Your task to perform on an android device: Open wifi settings Image 0: 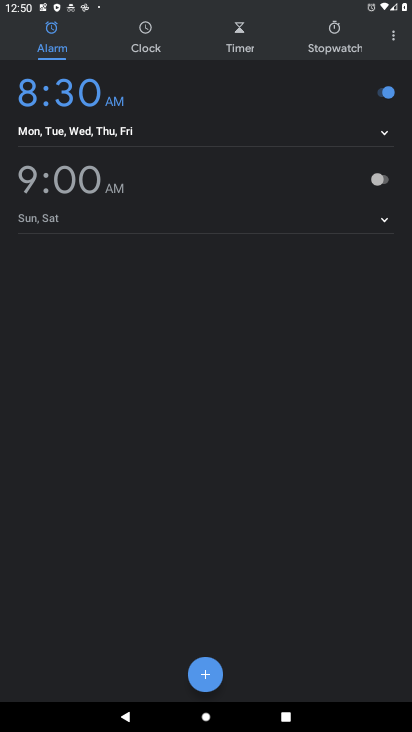
Step 0: press home button
Your task to perform on an android device: Open wifi settings Image 1: 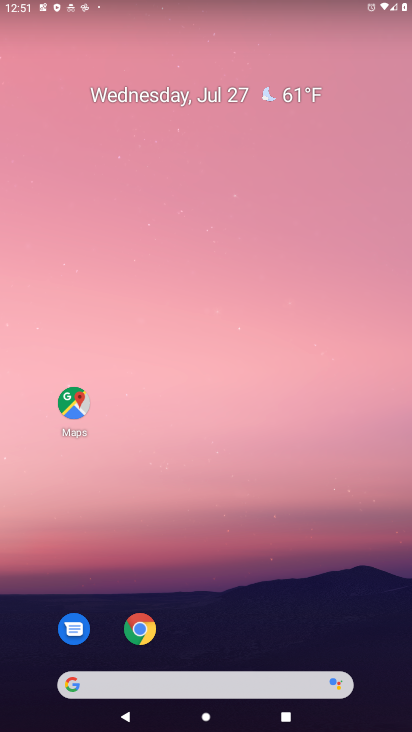
Step 1: drag from (272, 625) to (196, 31)
Your task to perform on an android device: Open wifi settings Image 2: 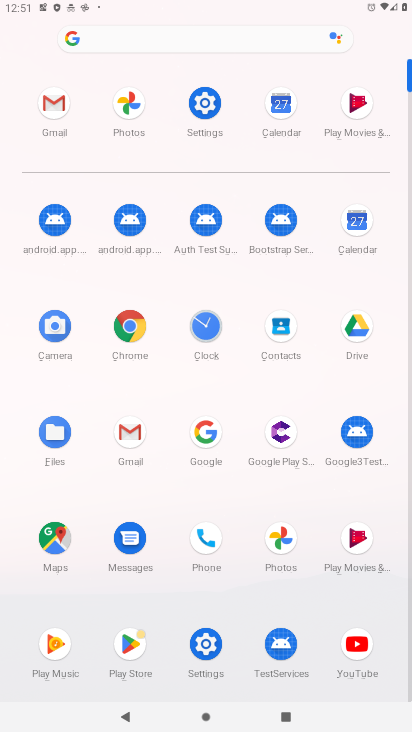
Step 2: click (213, 125)
Your task to perform on an android device: Open wifi settings Image 3: 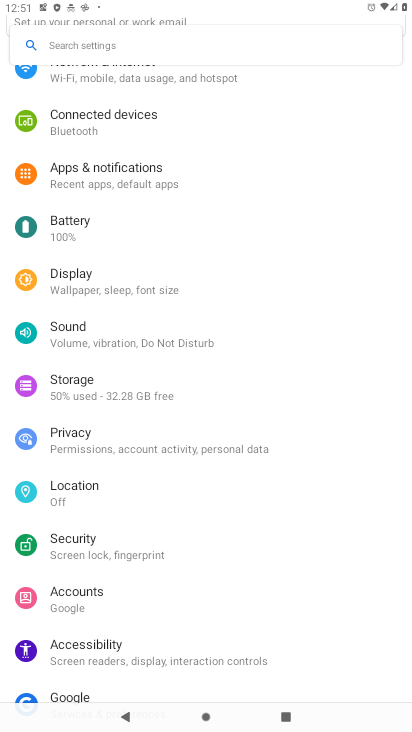
Step 3: click (157, 91)
Your task to perform on an android device: Open wifi settings Image 4: 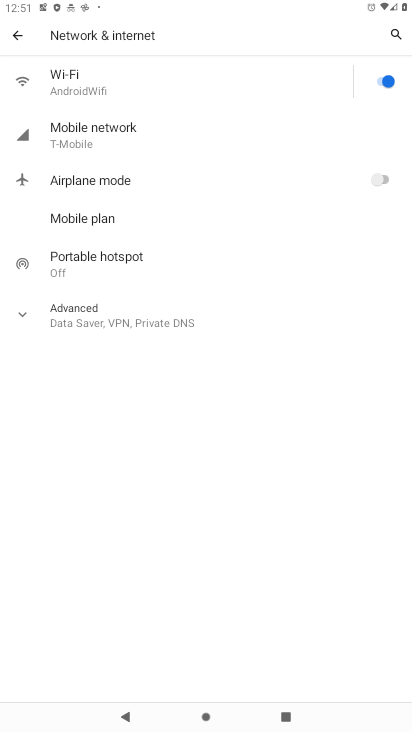
Step 4: task complete